Your task to perform on an android device: change your default location settings in chrome Image 0: 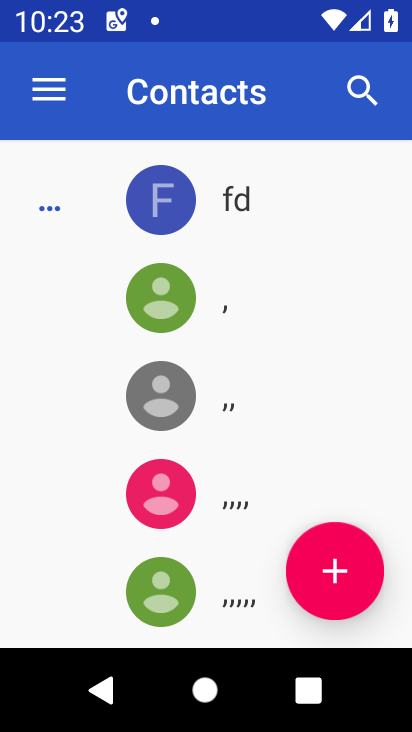
Step 0: press home button
Your task to perform on an android device: change your default location settings in chrome Image 1: 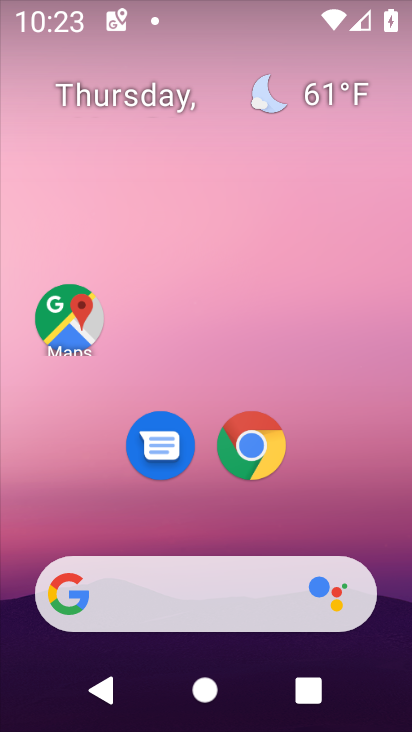
Step 1: click (269, 438)
Your task to perform on an android device: change your default location settings in chrome Image 2: 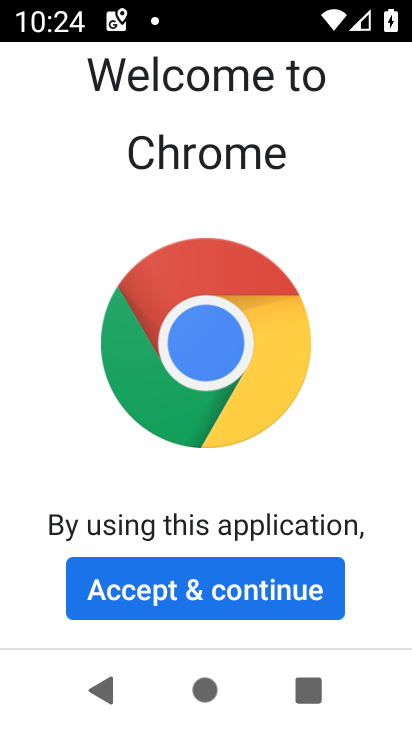
Step 2: click (224, 586)
Your task to perform on an android device: change your default location settings in chrome Image 3: 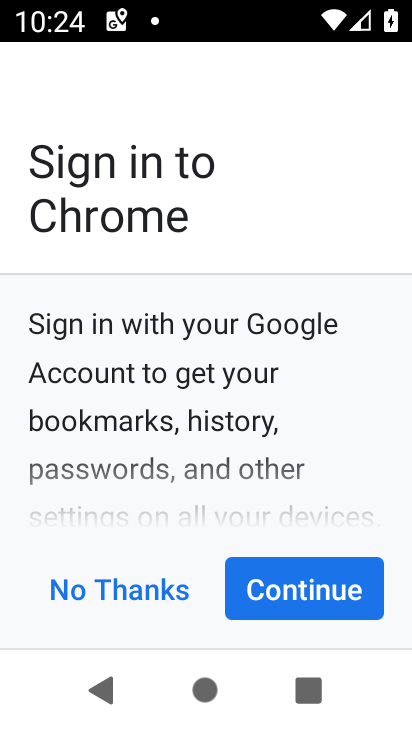
Step 3: click (296, 590)
Your task to perform on an android device: change your default location settings in chrome Image 4: 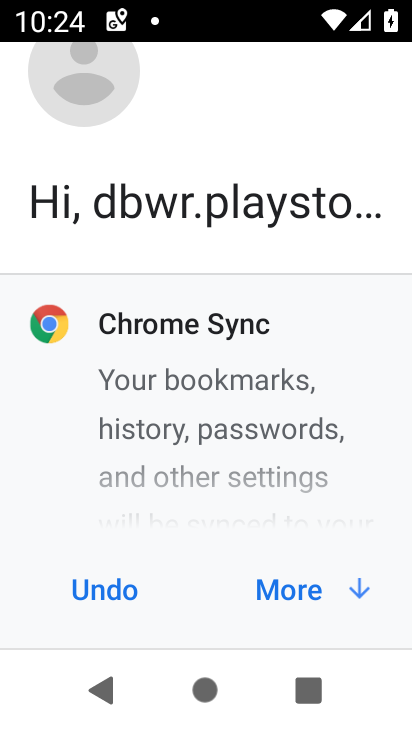
Step 4: click (354, 591)
Your task to perform on an android device: change your default location settings in chrome Image 5: 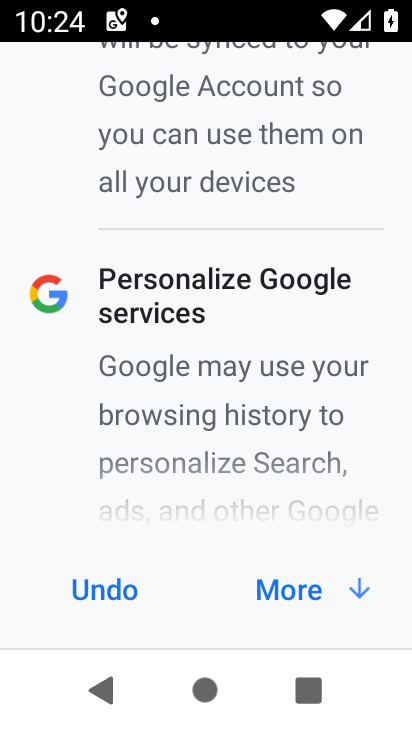
Step 5: click (299, 599)
Your task to perform on an android device: change your default location settings in chrome Image 6: 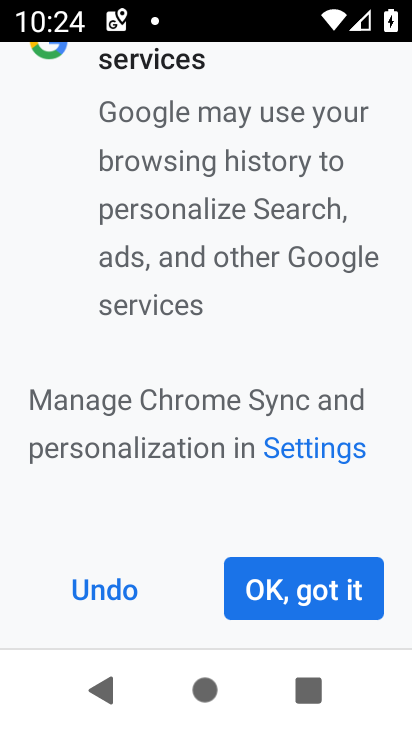
Step 6: click (295, 569)
Your task to perform on an android device: change your default location settings in chrome Image 7: 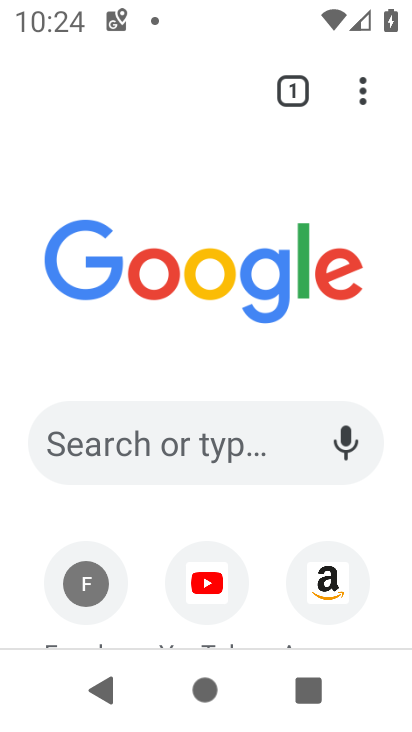
Step 7: click (366, 93)
Your task to perform on an android device: change your default location settings in chrome Image 8: 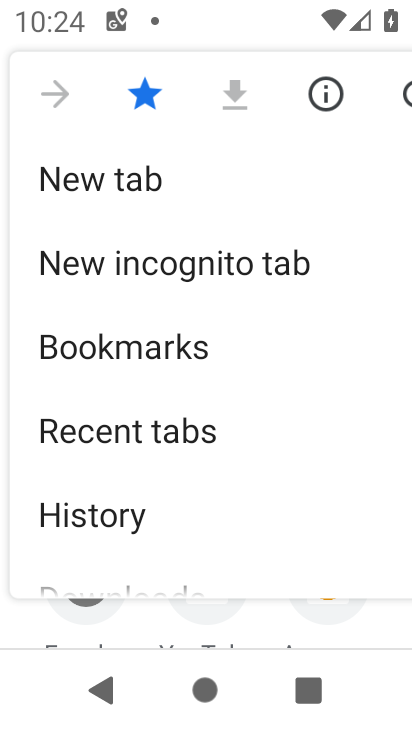
Step 8: drag from (151, 494) to (101, 65)
Your task to perform on an android device: change your default location settings in chrome Image 9: 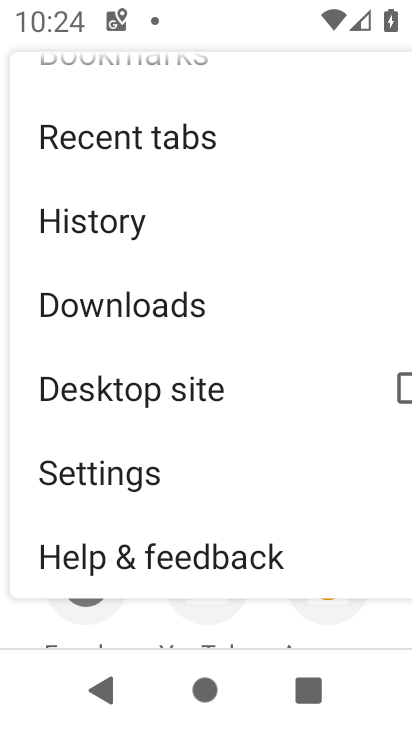
Step 9: click (114, 480)
Your task to perform on an android device: change your default location settings in chrome Image 10: 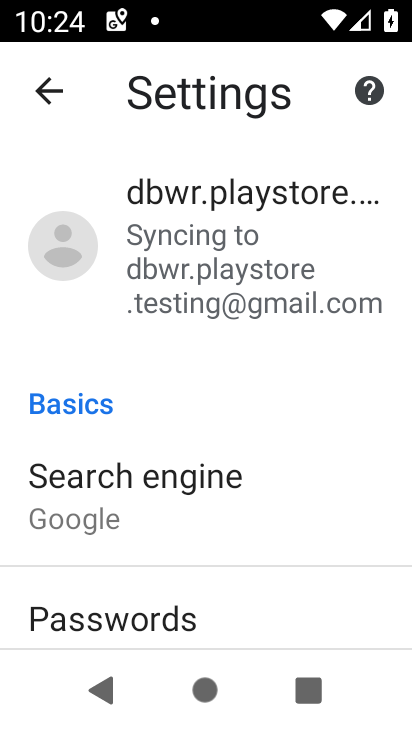
Step 10: drag from (129, 599) to (142, 209)
Your task to perform on an android device: change your default location settings in chrome Image 11: 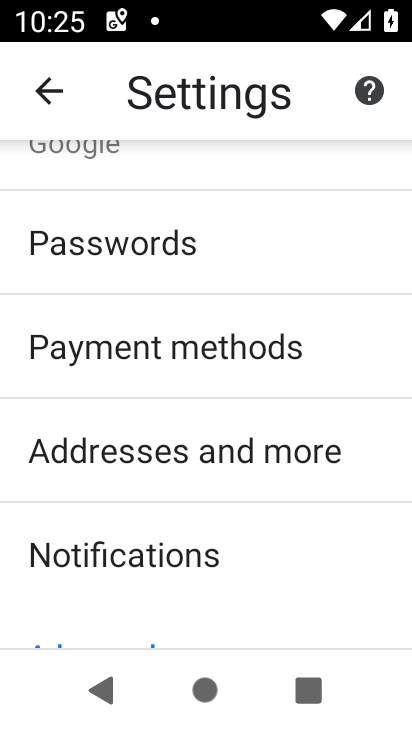
Step 11: drag from (163, 576) to (172, 158)
Your task to perform on an android device: change your default location settings in chrome Image 12: 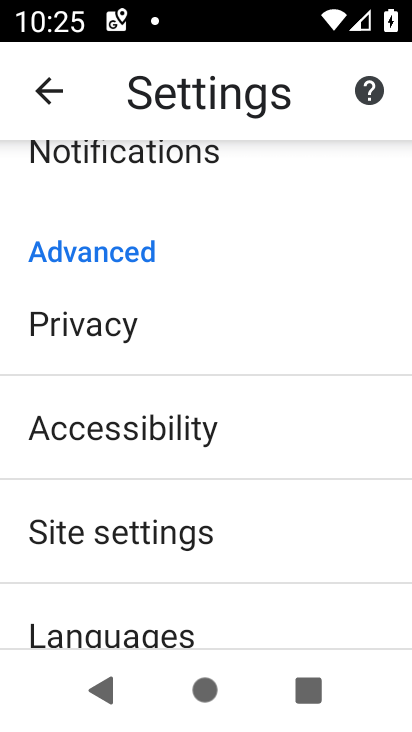
Step 12: click (90, 527)
Your task to perform on an android device: change your default location settings in chrome Image 13: 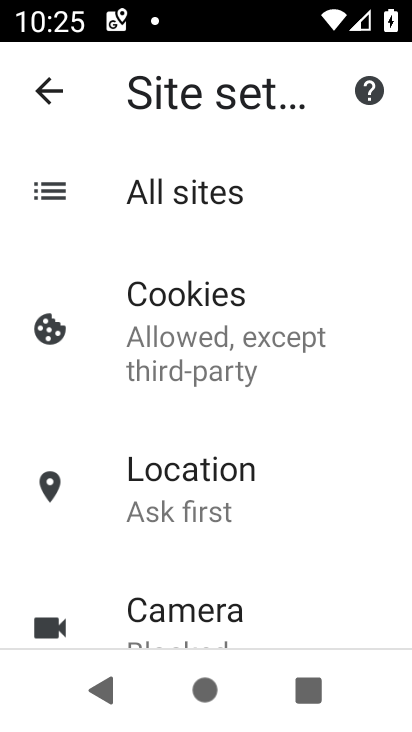
Step 13: click (183, 508)
Your task to perform on an android device: change your default location settings in chrome Image 14: 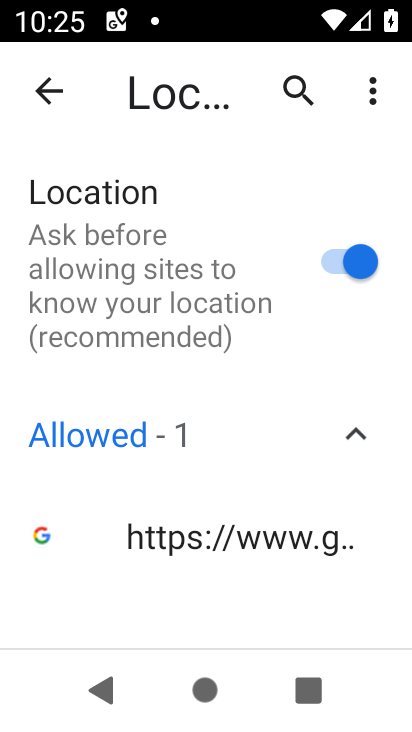
Step 14: click (354, 262)
Your task to perform on an android device: change your default location settings in chrome Image 15: 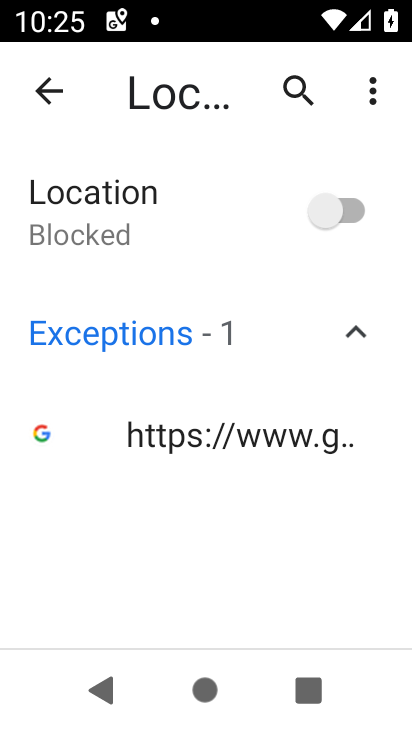
Step 15: task complete